Your task to perform on an android device: Open Google Chrome Image 0: 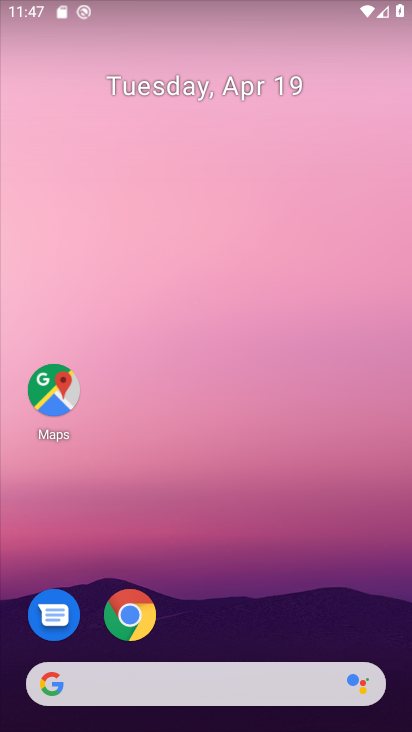
Step 0: click (136, 627)
Your task to perform on an android device: Open Google Chrome Image 1: 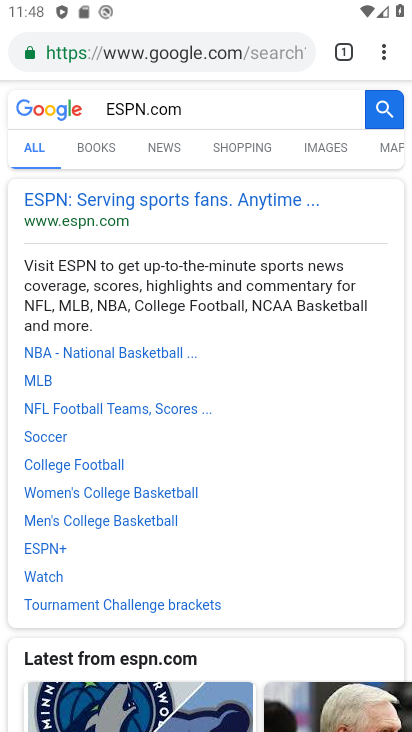
Step 1: task complete